Your task to perform on an android device: turn off data saver in the chrome app Image 0: 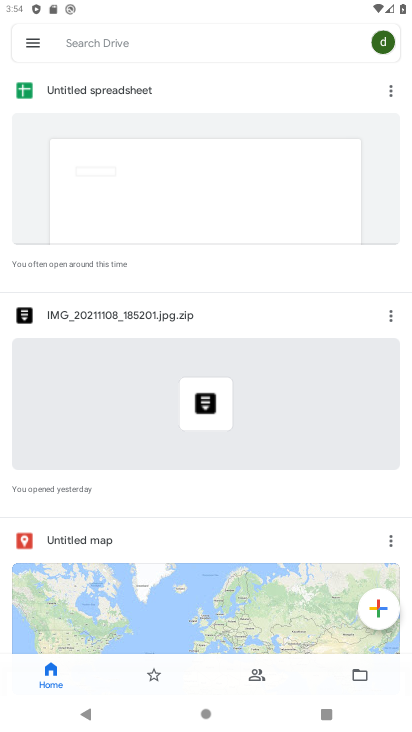
Step 0: press home button
Your task to perform on an android device: turn off data saver in the chrome app Image 1: 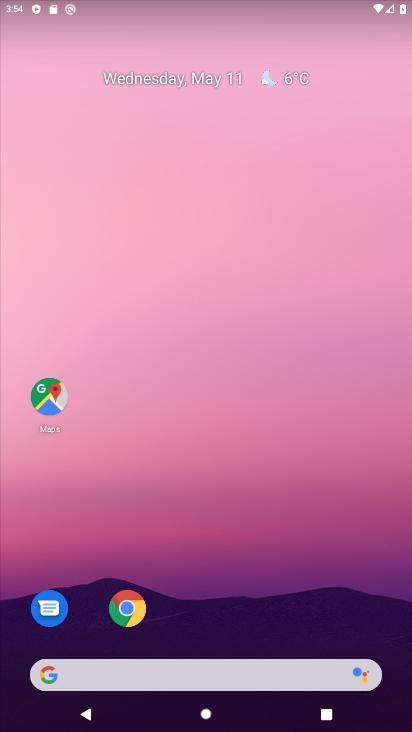
Step 1: click (129, 608)
Your task to perform on an android device: turn off data saver in the chrome app Image 2: 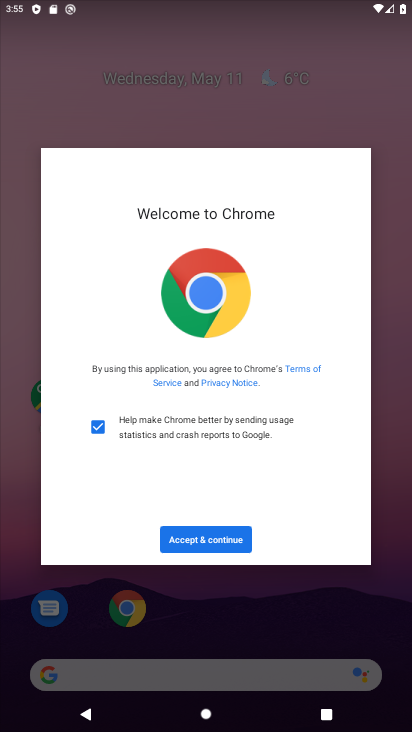
Step 2: click (194, 532)
Your task to perform on an android device: turn off data saver in the chrome app Image 3: 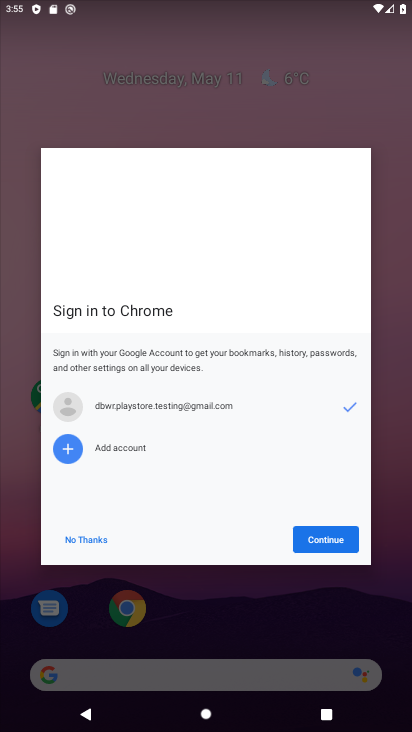
Step 3: click (318, 540)
Your task to perform on an android device: turn off data saver in the chrome app Image 4: 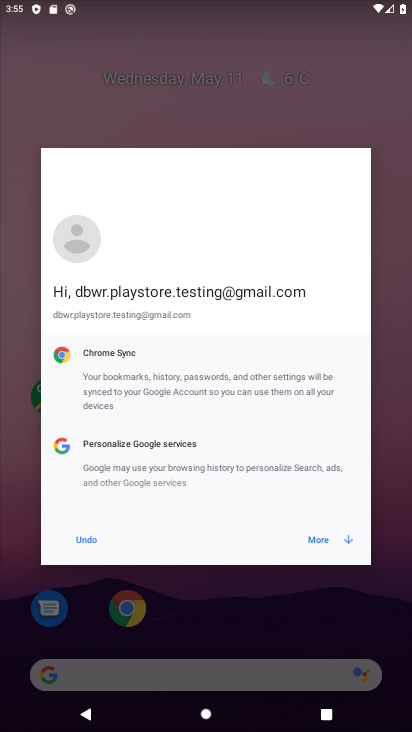
Step 4: click (312, 534)
Your task to perform on an android device: turn off data saver in the chrome app Image 5: 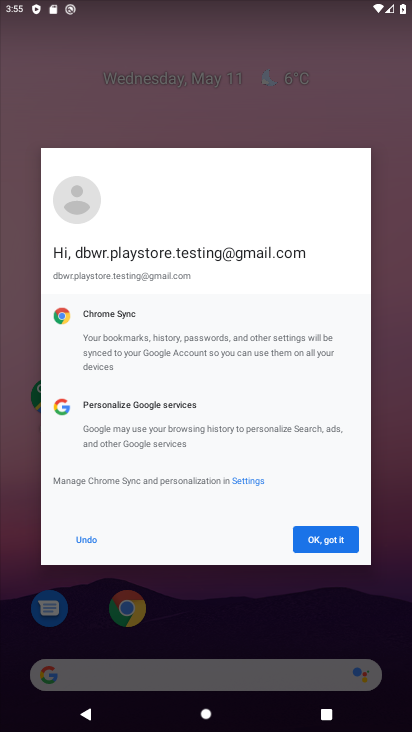
Step 5: click (328, 541)
Your task to perform on an android device: turn off data saver in the chrome app Image 6: 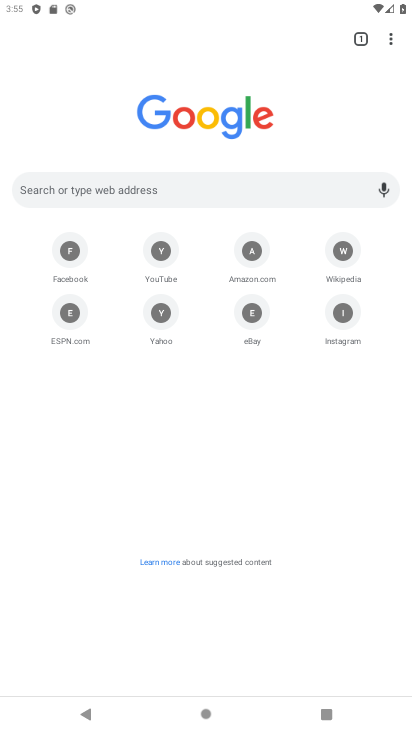
Step 6: click (393, 44)
Your task to perform on an android device: turn off data saver in the chrome app Image 7: 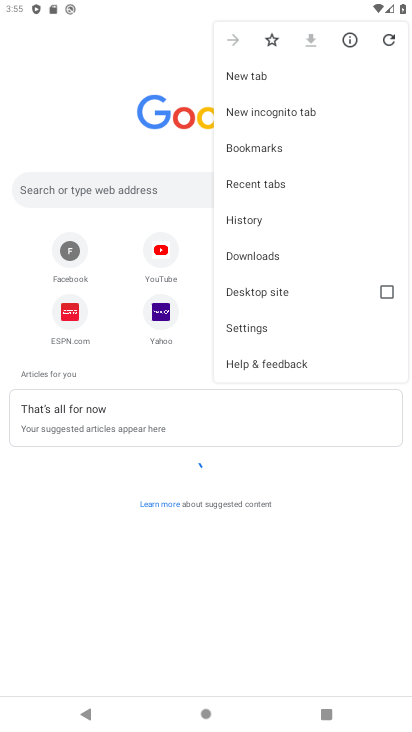
Step 7: click (256, 325)
Your task to perform on an android device: turn off data saver in the chrome app Image 8: 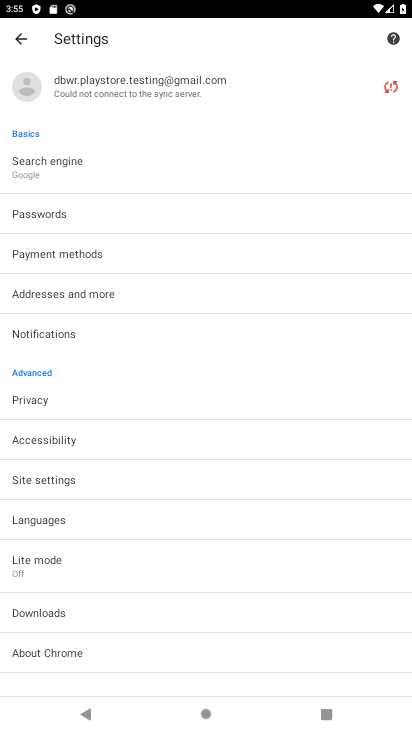
Step 8: click (73, 565)
Your task to perform on an android device: turn off data saver in the chrome app Image 9: 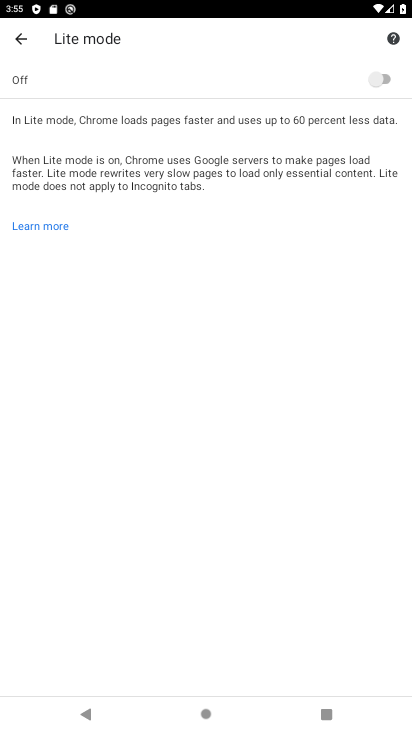
Step 9: task complete